Your task to perform on an android device: turn pop-ups on in chrome Image 0: 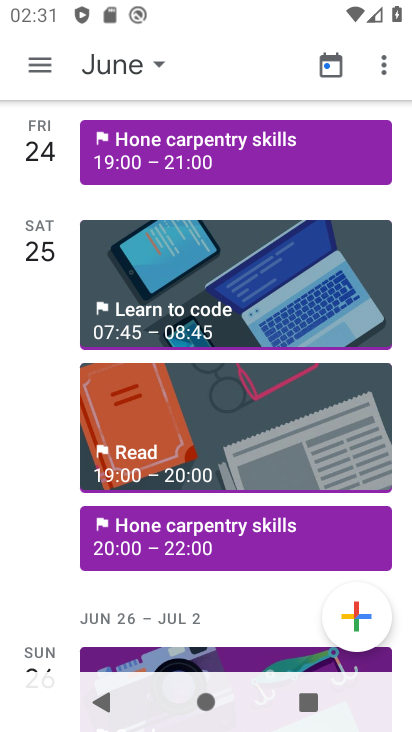
Step 0: drag from (227, 606) to (294, 197)
Your task to perform on an android device: turn pop-ups on in chrome Image 1: 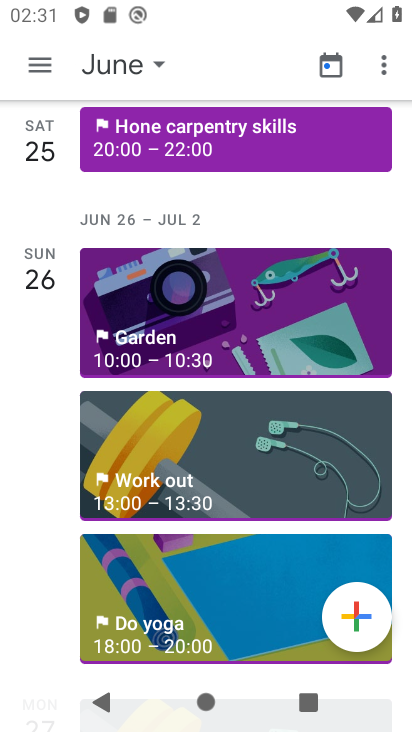
Step 1: drag from (248, 628) to (287, 208)
Your task to perform on an android device: turn pop-ups on in chrome Image 2: 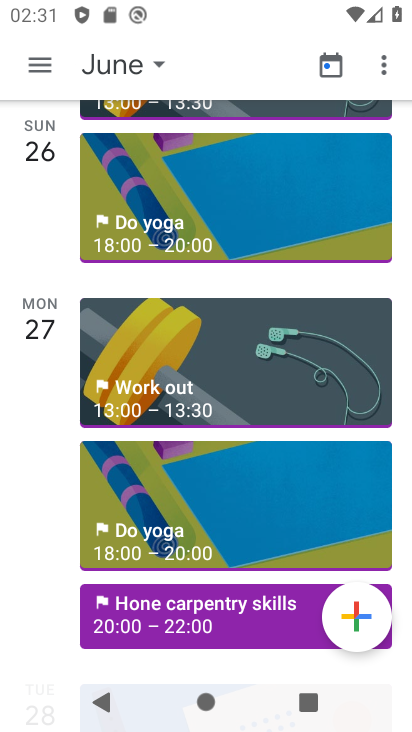
Step 2: press home button
Your task to perform on an android device: turn pop-ups on in chrome Image 3: 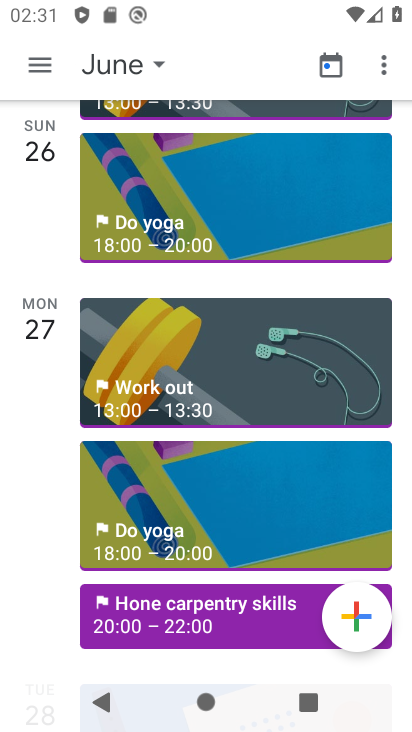
Step 3: press home button
Your task to perform on an android device: turn pop-ups on in chrome Image 4: 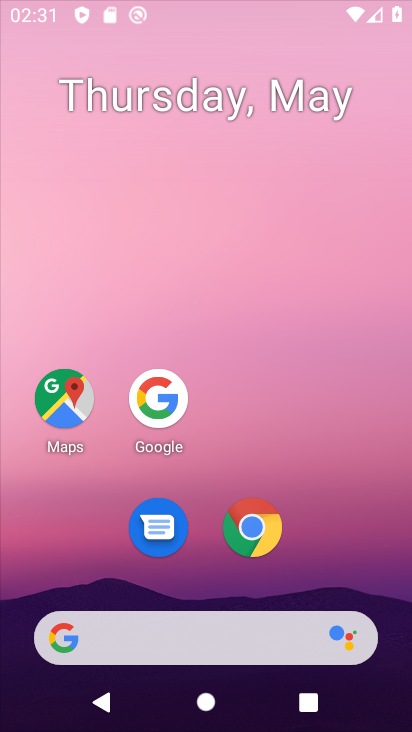
Step 4: drag from (216, 582) to (295, 40)
Your task to perform on an android device: turn pop-ups on in chrome Image 5: 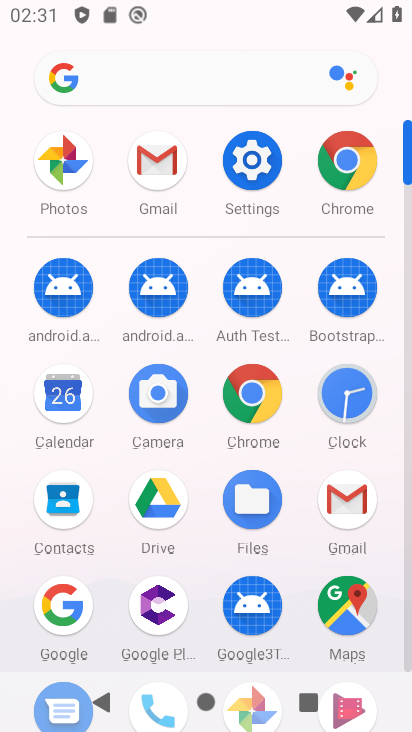
Step 5: click (339, 155)
Your task to perform on an android device: turn pop-ups on in chrome Image 6: 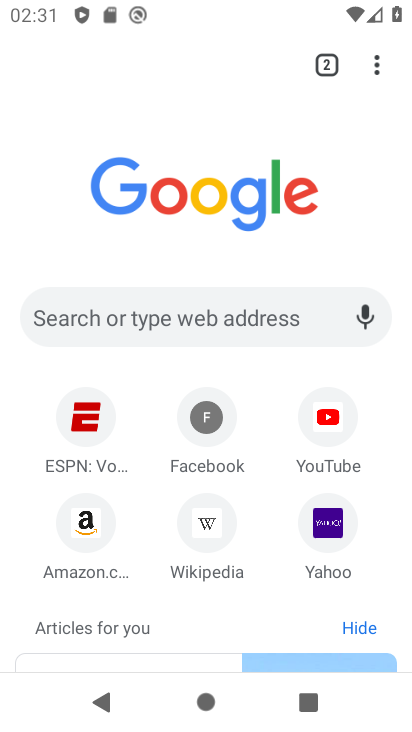
Step 6: drag from (247, 591) to (309, 278)
Your task to perform on an android device: turn pop-ups on in chrome Image 7: 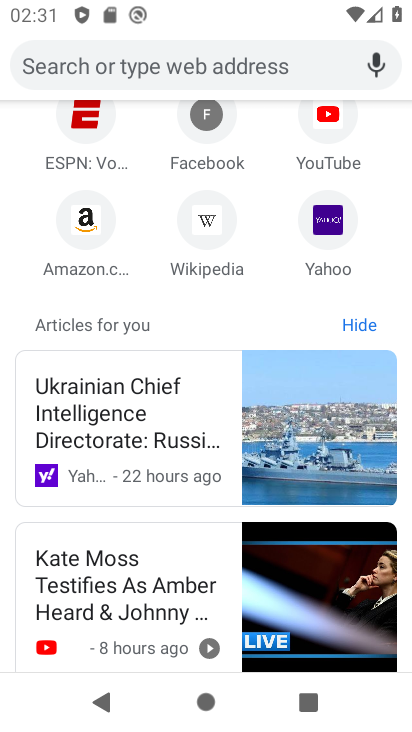
Step 7: drag from (278, 176) to (282, 461)
Your task to perform on an android device: turn pop-ups on in chrome Image 8: 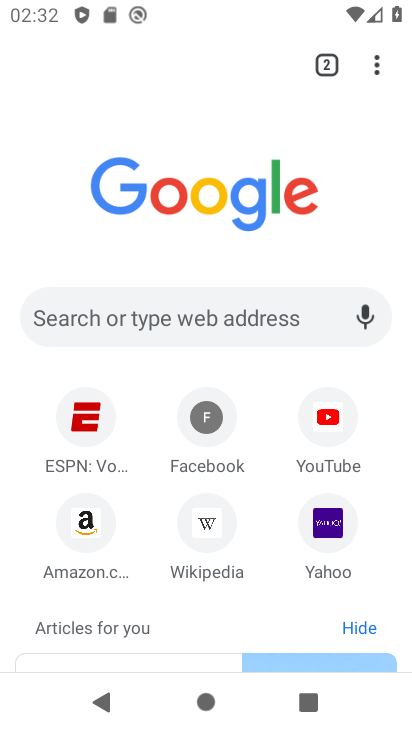
Step 8: click (375, 62)
Your task to perform on an android device: turn pop-ups on in chrome Image 9: 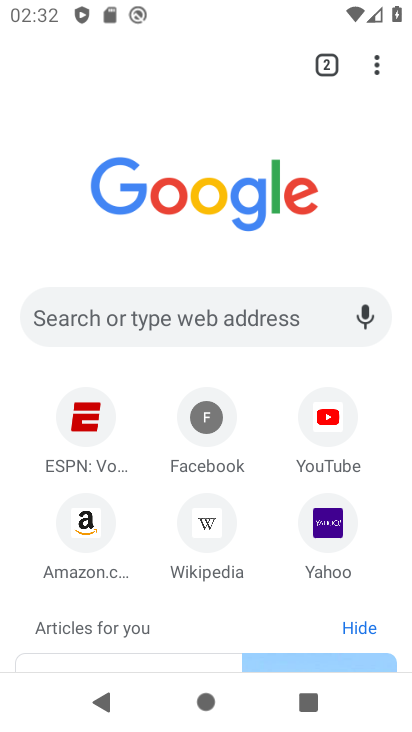
Step 9: click (375, 62)
Your task to perform on an android device: turn pop-ups on in chrome Image 10: 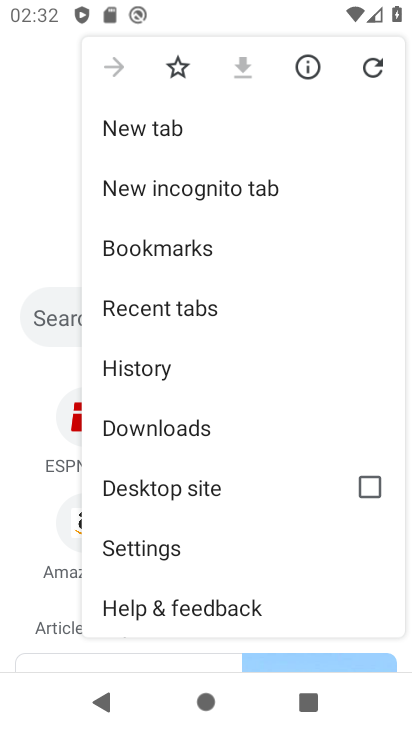
Step 10: drag from (250, 415) to (278, 96)
Your task to perform on an android device: turn pop-ups on in chrome Image 11: 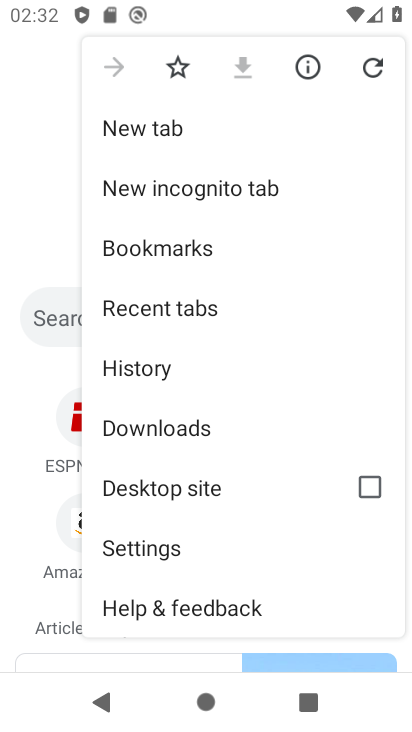
Step 11: click (156, 543)
Your task to perform on an android device: turn pop-ups on in chrome Image 12: 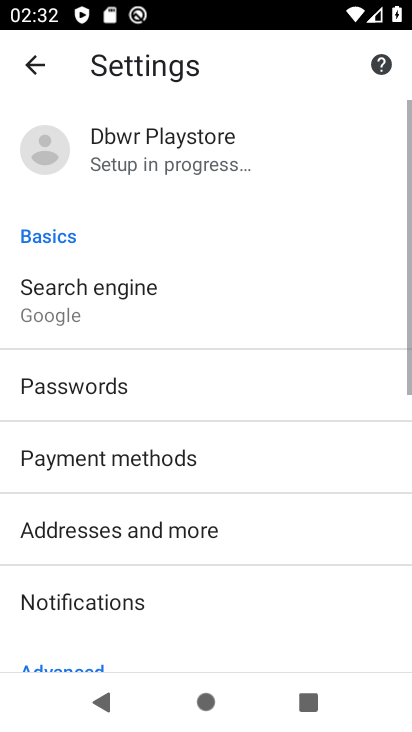
Step 12: drag from (242, 571) to (360, 154)
Your task to perform on an android device: turn pop-ups on in chrome Image 13: 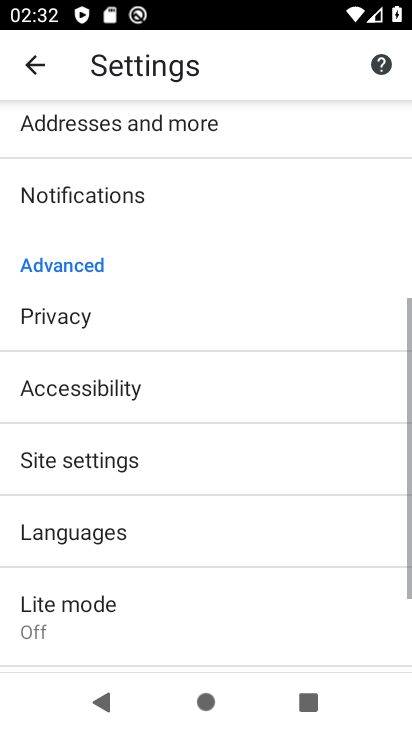
Step 13: drag from (220, 560) to (215, 398)
Your task to perform on an android device: turn pop-ups on in chrome Image 14: 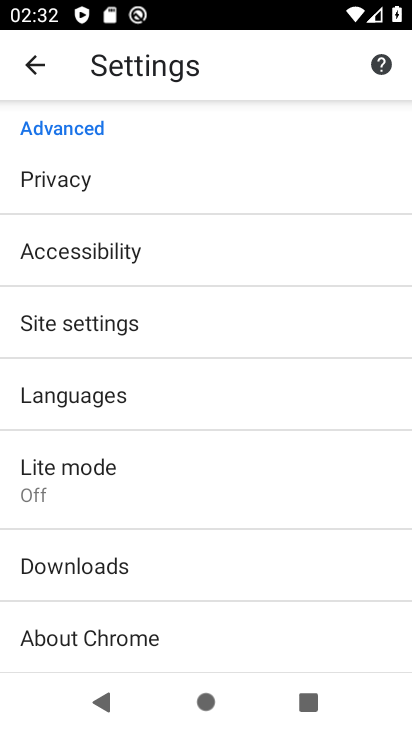
Step 14: click (151, 312)
Your task to perform on an android device: turn pop-ups on in chrome Image 15: 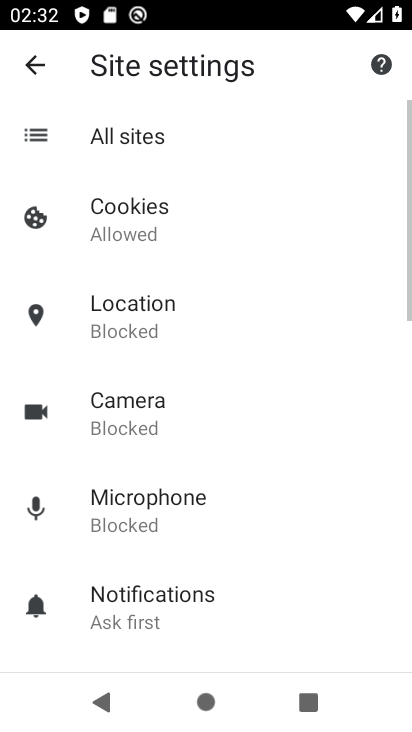
Step 15: drag from (213, 565) to (294, 186)
Your task to perform on an android device: turn pop-ups on in chrome Image 16: 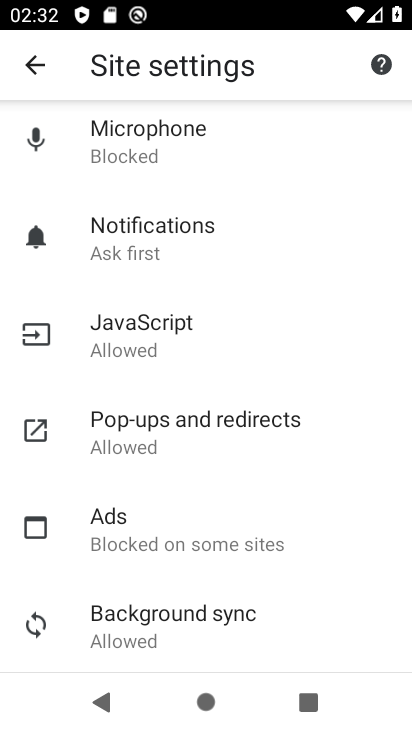
Step 16: click (162, 421)
Your task to perform on an android device: turn pop-ups on in chrome Image 17: 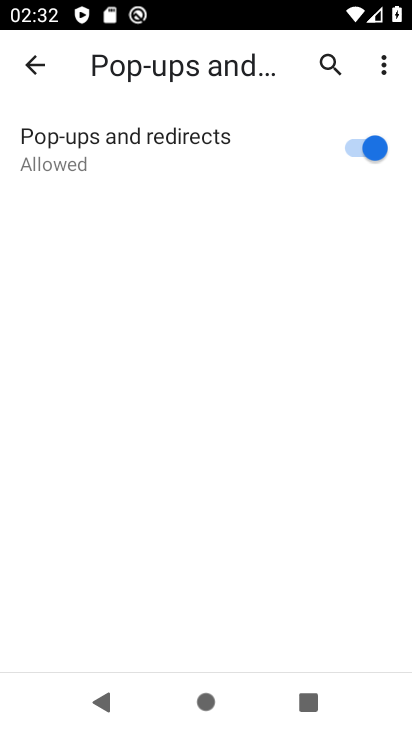
Step 17: task complete